Your task to perform on an android device: delete a single message in the gmail app Image 0: 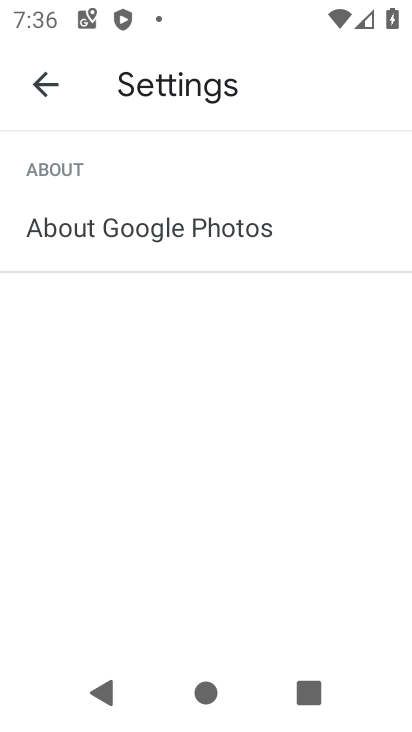
Step 0: press home button
Your task to perform on an android device: delete a single message in the gmail app Image 1: 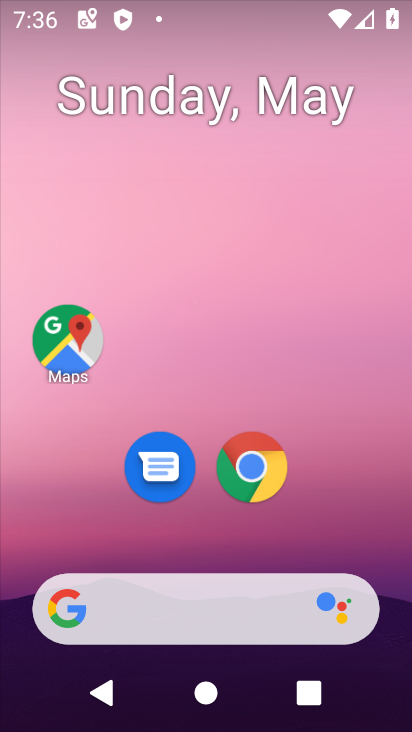
Step 1: drag from (57, 433) to (220, 131)
Your task to perform on an android device: delete a single message in the gmail app Image 2: 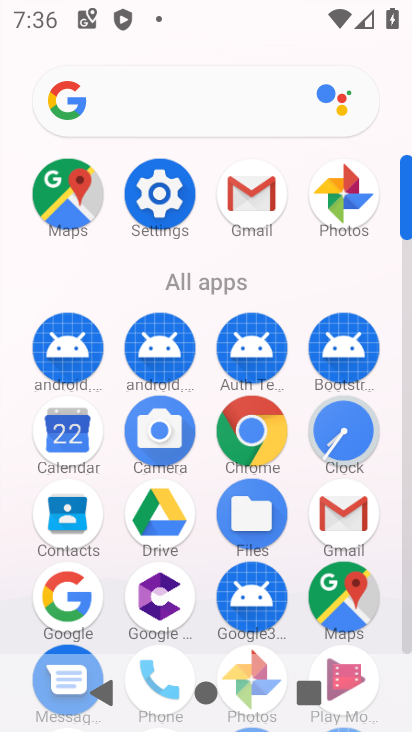
Step 2: click (272, 226)
Your task to perform on an android device: delete a single message in the gmail app Image 3: 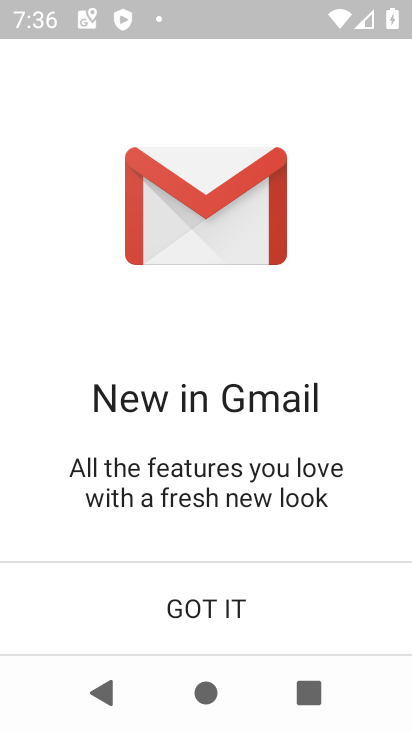
Step 3: click (256, 623)
Your task to perform on an android device: delete a single message in the gmail app Image 4: 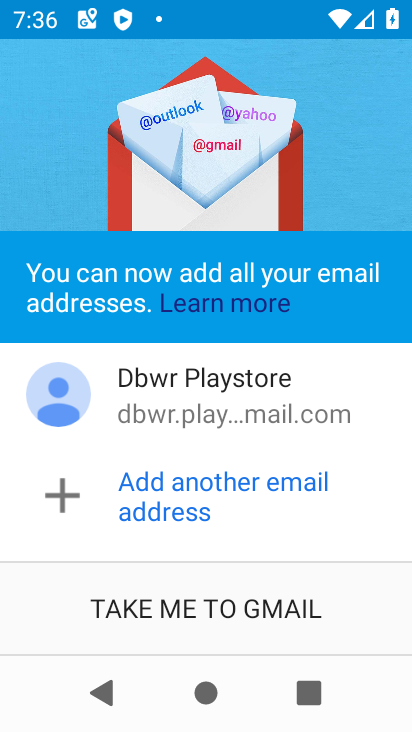
Step 4: click (241, 631)
Your task to perform on an android device: delete a single message in the gmail app Image 5: 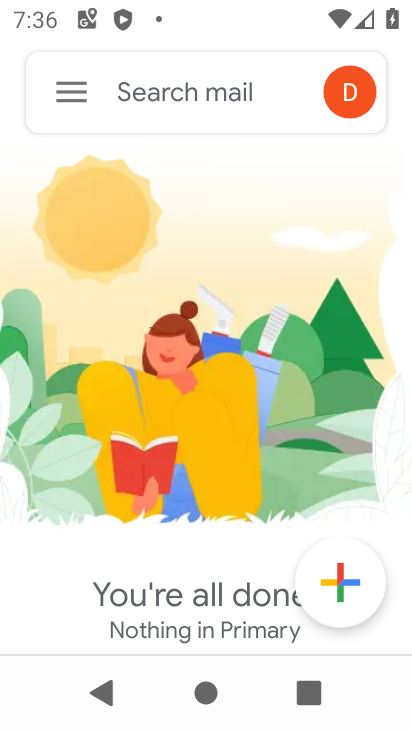
Step 5: click (86, 93)
Your task to perform on an android device: delete a single message in the gmail app Image 6: 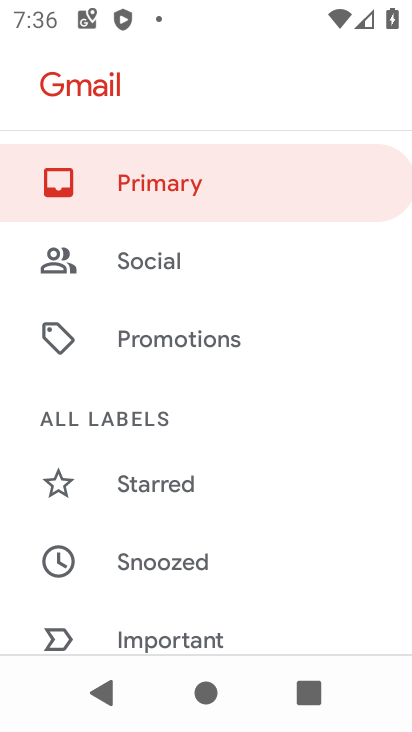
Step 6: drag from (146, 588) to (228, 191)
Your task to perform on an android device: delete a single message in the gmail app Image 7: 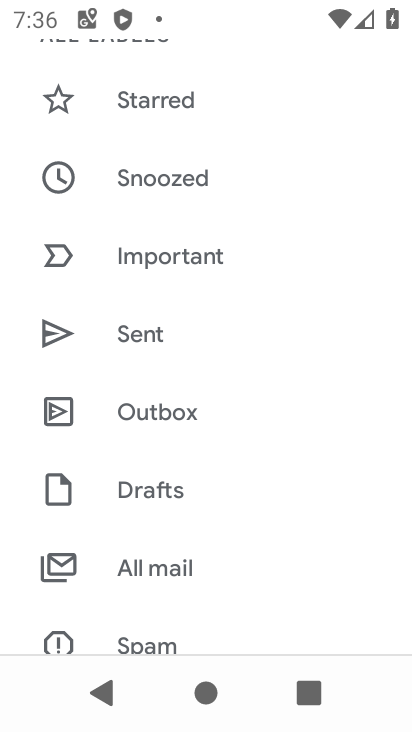
Step 7: click (190, 558)
Your task to perform on an android device: delete a single message in the gmail app Image 8: 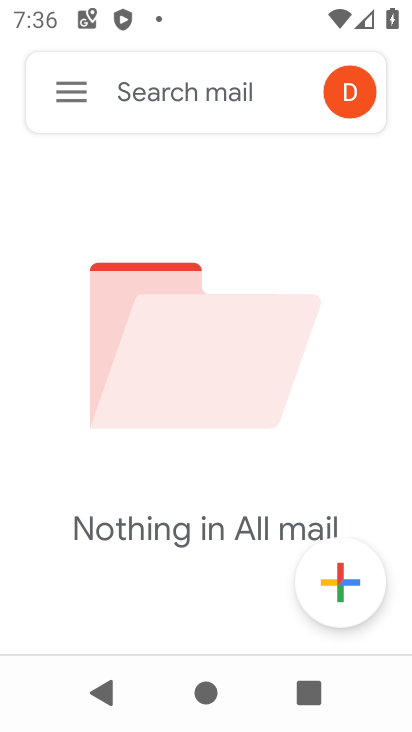
Step 8: task complete